Your task to perform on an android device: turn on improve location accuracy Image 0: 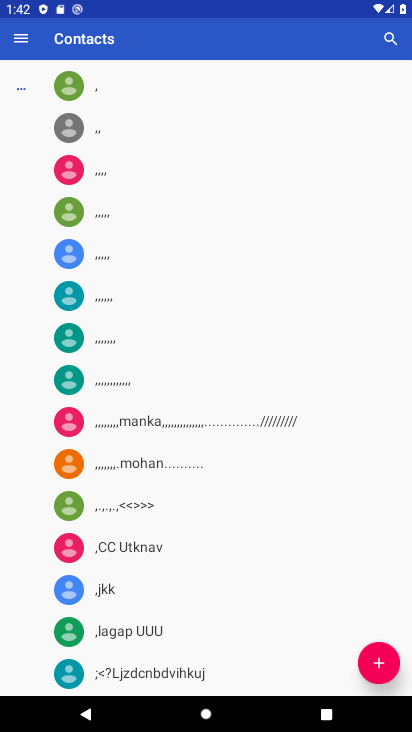
Step 0: press home button
Your task to perform on an android device: turn on improve location accuracy Image 1: 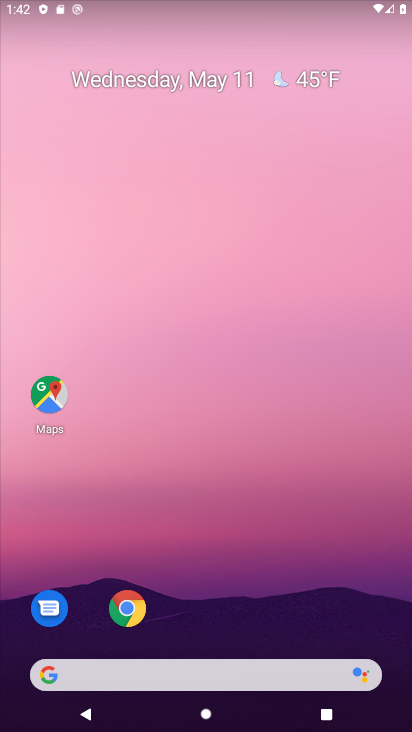
Step 1: drag from (231, 613) to (217, 107)
Your task to perform on an android device: turn on improve location accuracy Image 2: 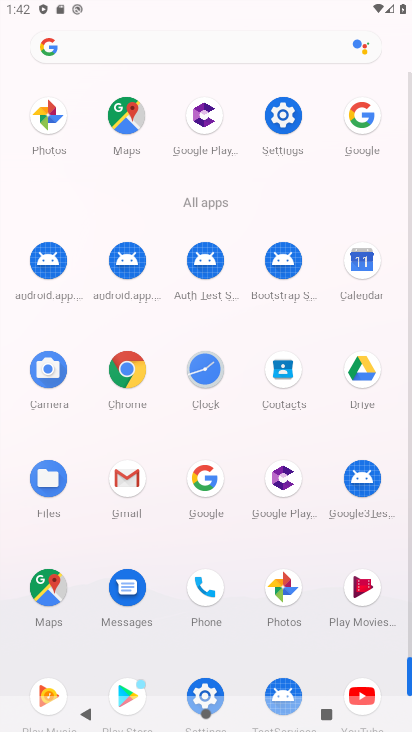
Step 2: click (283, 113)
Your task to perform on an android device: turn on improve location accuracy Image 3: 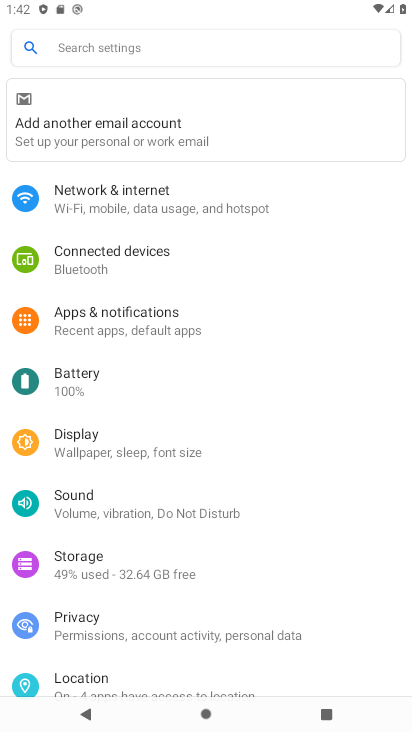
Step 3: drag from (252, 508) to (251, 226)
Your task to perform on an android device: turn on improve location accuracy Image 4: 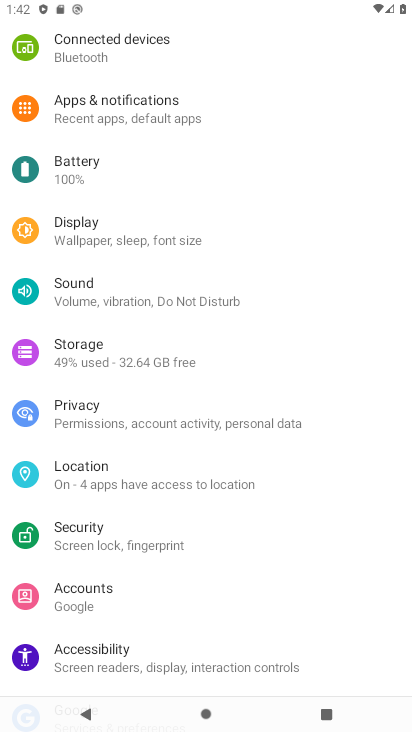
Step 4: click (91, 470)
Your task to perform on an android device: turn on improve location accuracy Image 5: 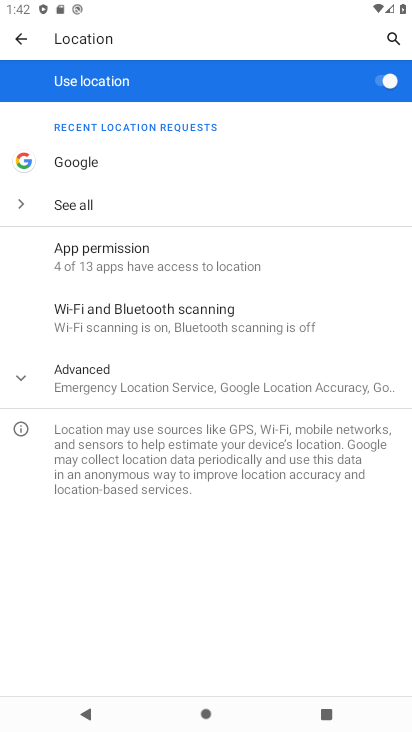
Step 5: click (116, 390)
Your task to perform on an android device: turn on improve location accuracy Image 6: 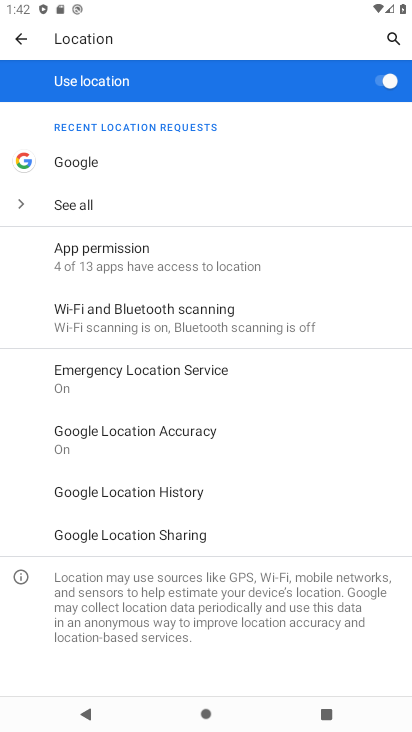
Step 6: click (189, 432)
Your task to perform on an android device: turn on improve location accuracy Image 7: 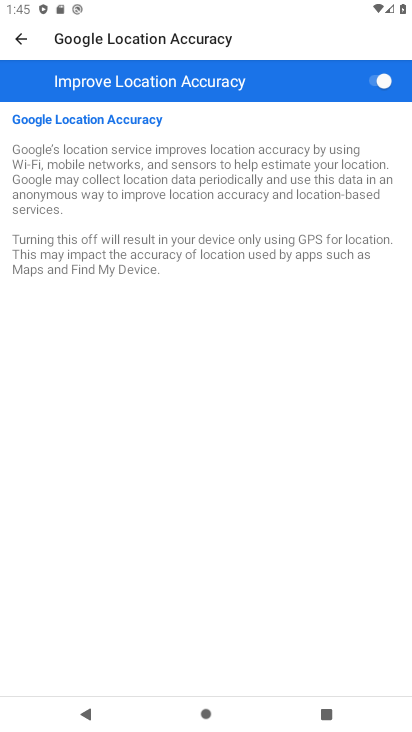
Step 7: task complete